Your task to perform on an android device: Do I have any events today? Image 0: 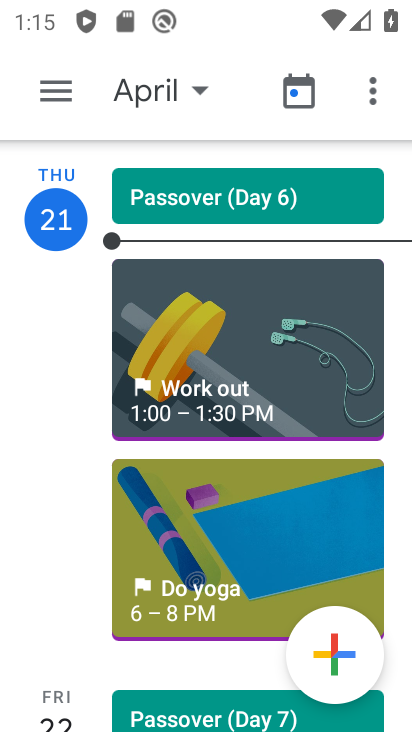
Step 0: press home button
Your task to perform on an android device: Do I have any events today? Image 1: 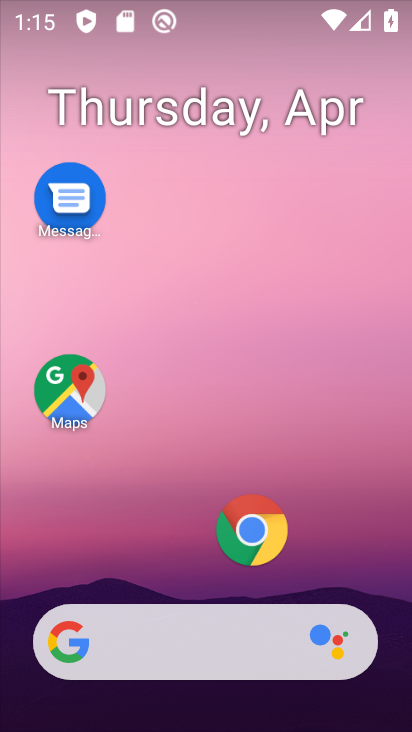
Step 1: drag from (202, 579) to (247, 5)
Your task to perform on an android device: Do I have any events today? Image 2: 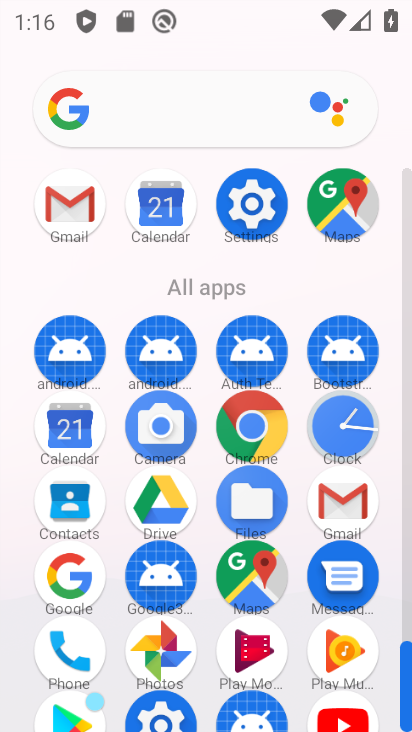
Step 2: click (76, 442)
Your task to perform on an android device: Do I have any events today? Image 3: 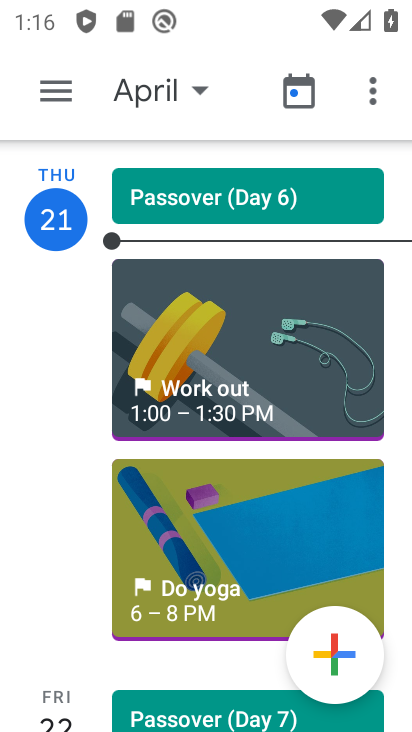
Step 3: click (45, 716)
Your task to perform on an android device: Do I have any events today? Image 4: 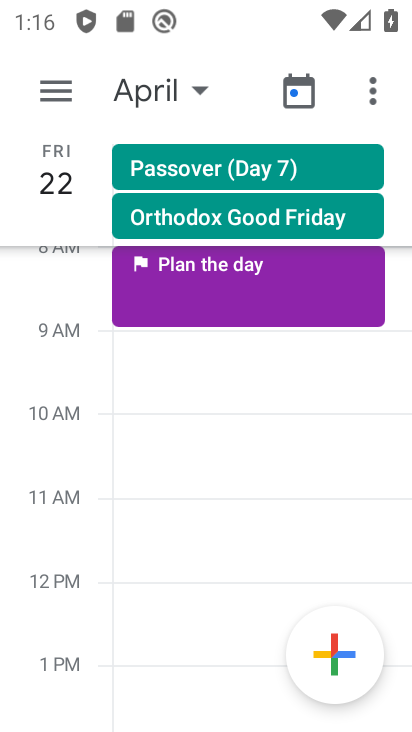
Step 4: task complete